Your task to perform on an android device: star an email in the gmail app Image 0: 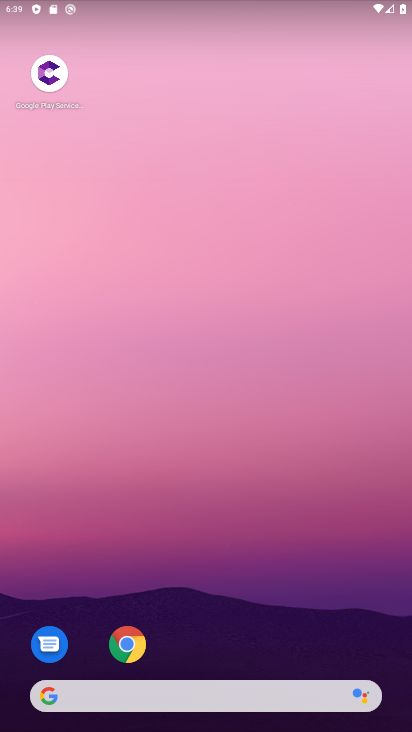
Step 0: drag from (232, 566) to (173, 78)
Your task to perform on an android device: star an email in the gmail app Image 1: 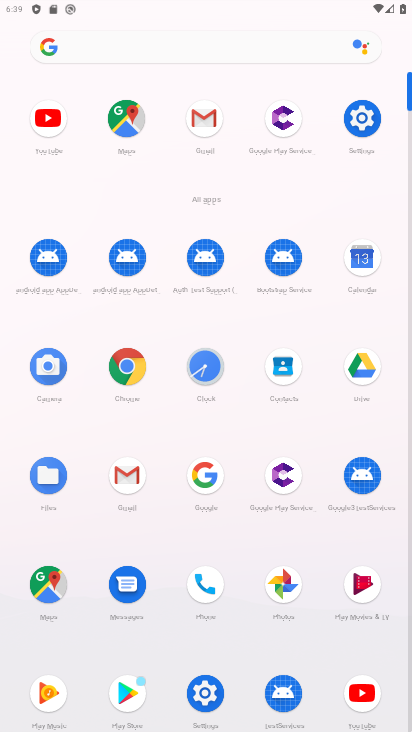
Step 1: click (198, 116)
Your task to perform on an android device: star an email in the gmail app Image 2: 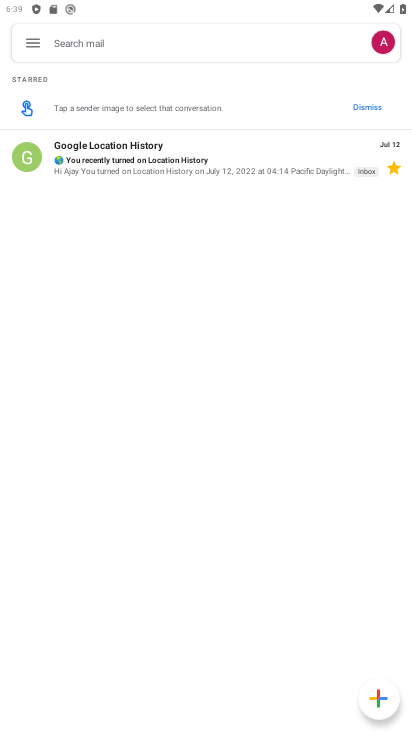
Step 2: task complete